Your task to perform on an android device: turn off data saver in the chrome app Image 0: 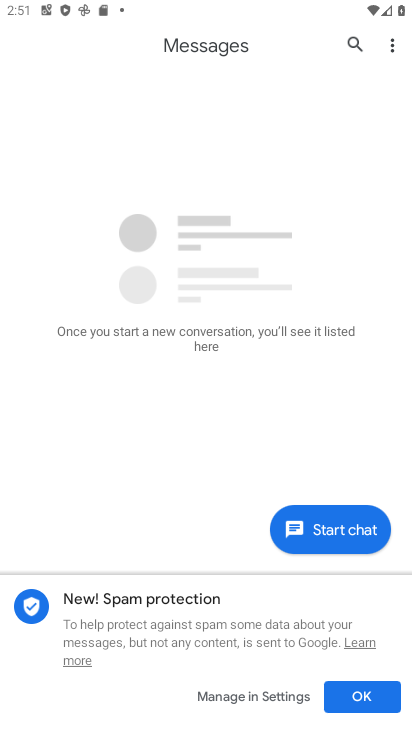
Step 0: press home button
Your task to perform on an android device: turn off data saver in the chrome app Image 1: 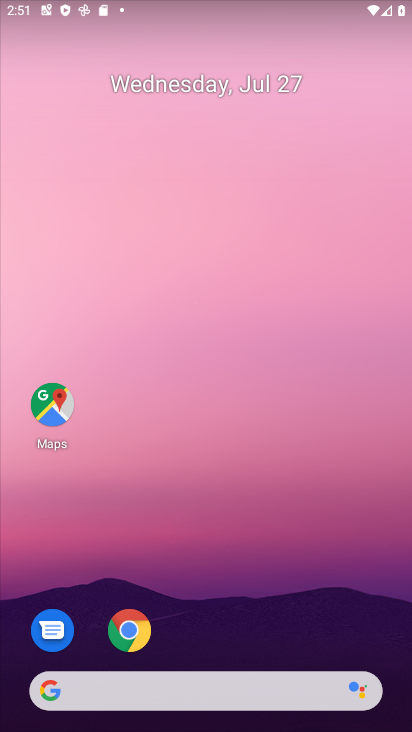
Step 1: click (137, 627)
Your task to perform on an android device: turn off data saver in the chrome app Image 2: 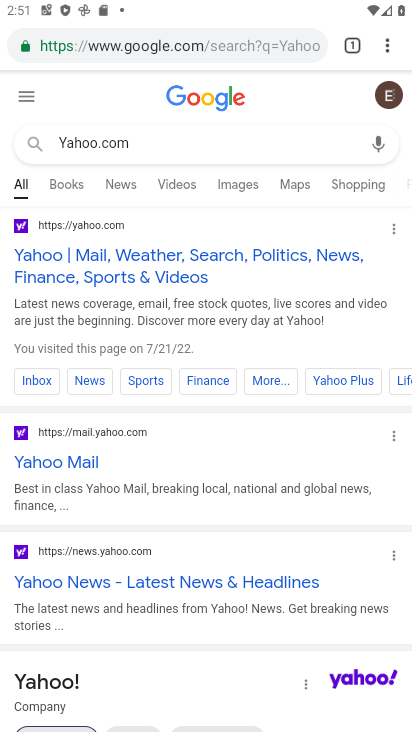
Step 2: click (384, 47)
Your task to perform on an android device: turn off data saver in the chrome app Image 3: 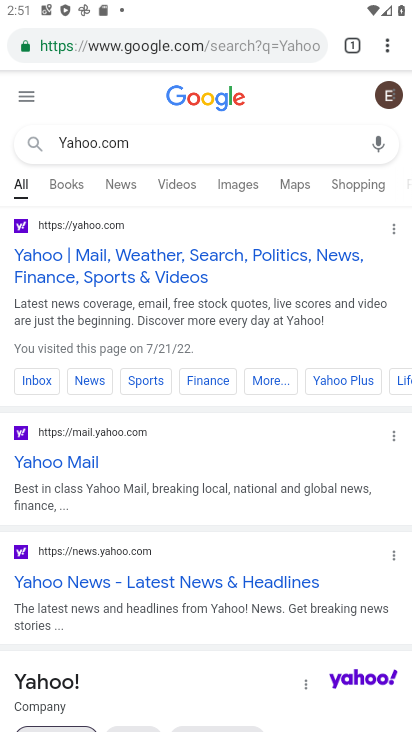
Step 3: click (386, 42)
Your task to perform on an android device: turn off data saver in the chrome app Image 4: 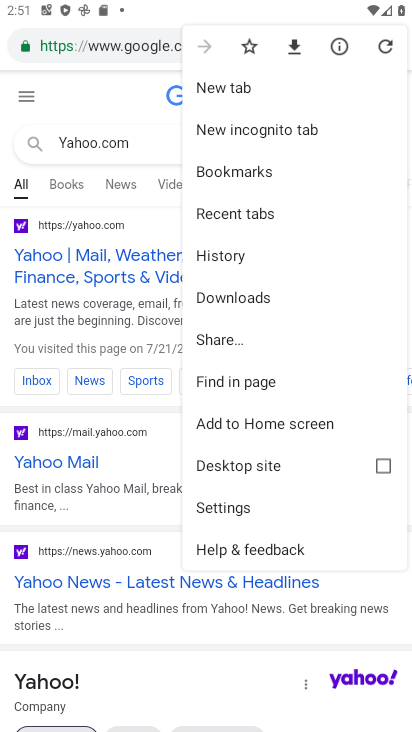
Step 4: click (244, 502)
Your task to perform on an android device: turn off data saver in the chrome app Image 5: 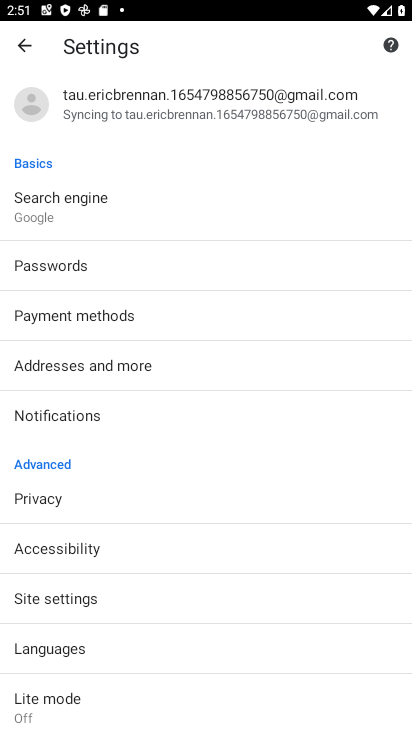
Step 5: click (62, 701)
Your task to perform on an android device: turn off data saver in the chrome app Image 6: 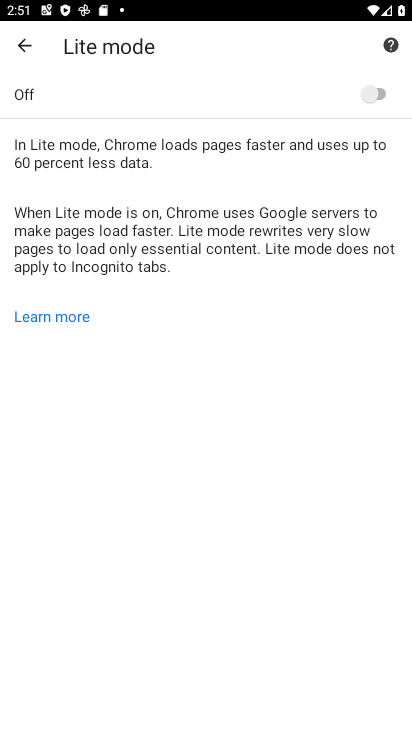
Step 6: task complete